Your task to perform on an android device: Is it going to rain this weekend? Image 0: 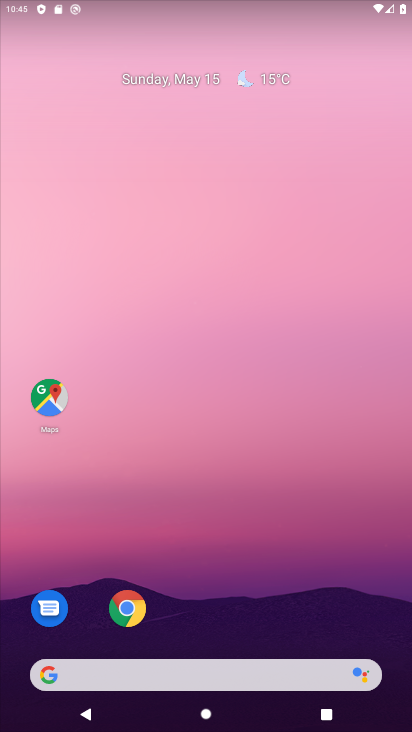
Step 0: click (231, 674)
Your task to perform on an android device: Is it going to rain this weekend? Image 1: 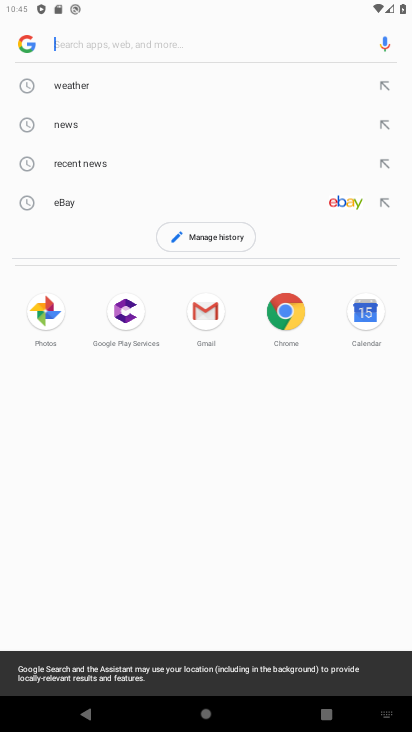
Step 1: click (87, 88)
Your task to perform on an android device: Is it going to rain this weekend? Image 2: 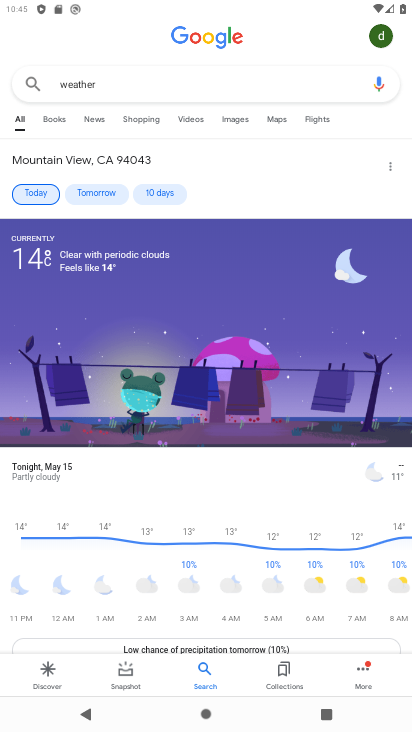
Step 2: click (174, 197)
Your task to perform on an android device: Is it going to rain this weekend? Image 3: 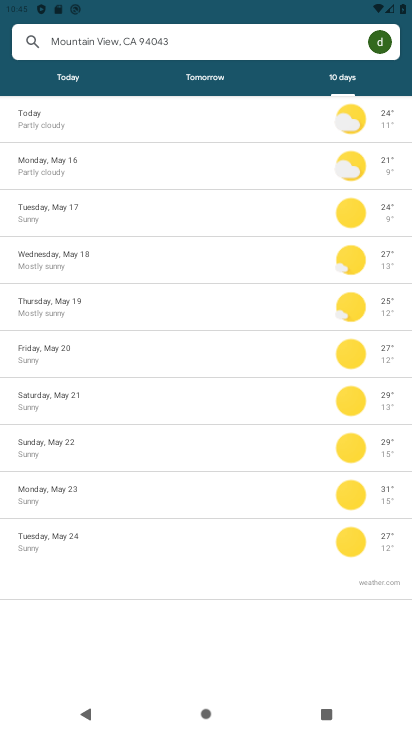
Step 3: task complete